Your task to perform on an android device: Open Google Chrome and open the bookmarks view Image 0: 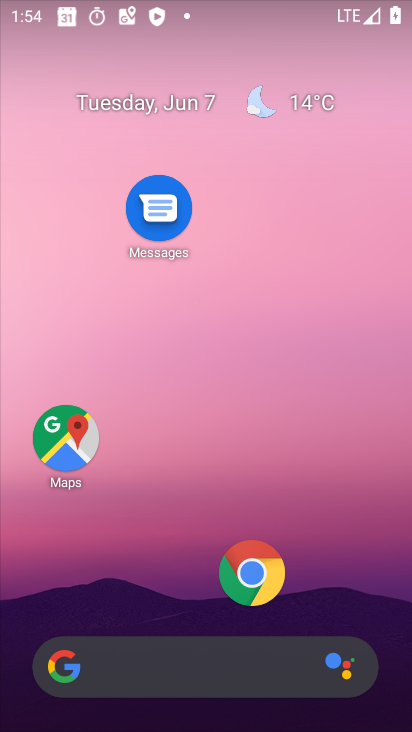
Step 0: click (248, 569)
Your task to perform on an android device: Open Google Chrome and open the bookmarks view Image 1: 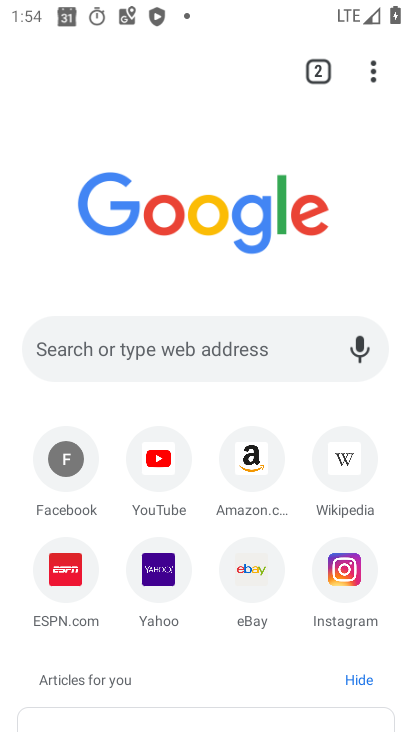
Step 1: click (371, 62)
Your task to perform on an android device: Open Google Chrome and open the bookmarks view Image 2: 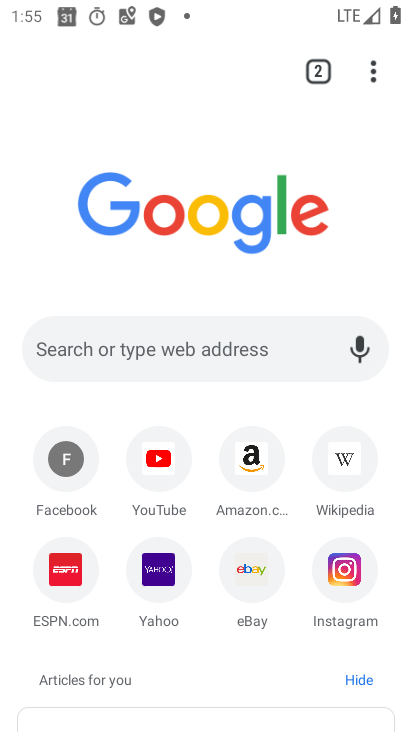
Step 2: click (372, 65)
Your task to perform on an android device: Open Google Chrome and open the bookmarks view Image 3: 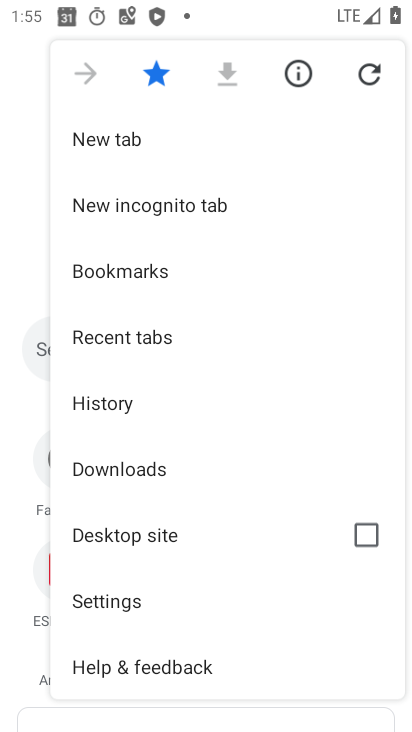
Step 3: click (175, 265)
Your task to perform on an android device: Open Google Chrome and open the bookmarks view Image 4: 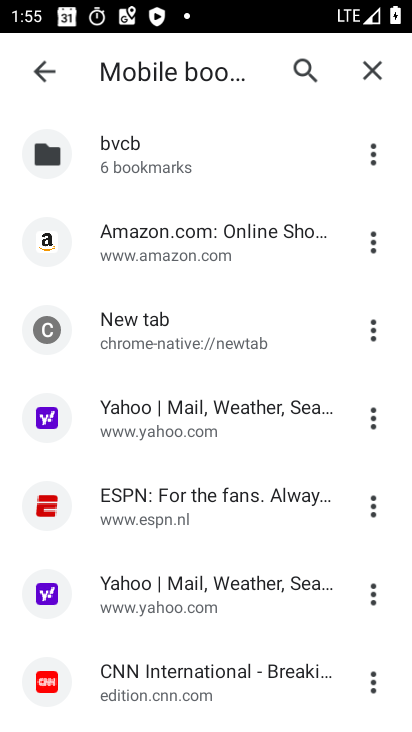
Step 4: click (242, 510)
Your task to perform on an android device: Open Google Chrome and open the bookmarks view Image 5: 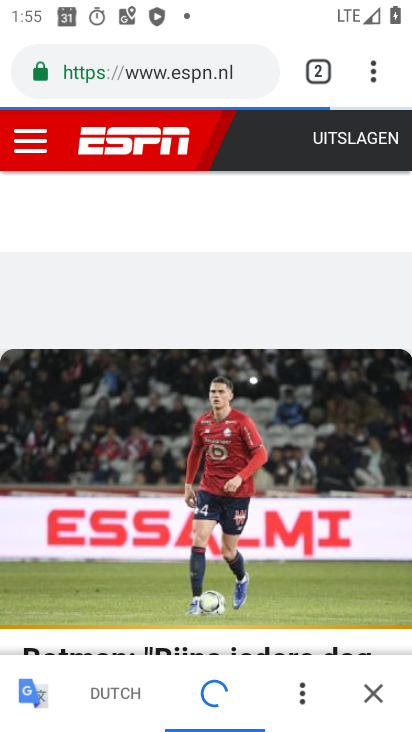
Step 5: task complete